Your task to perform on an android device: turn on bluetooth scan Image 0: 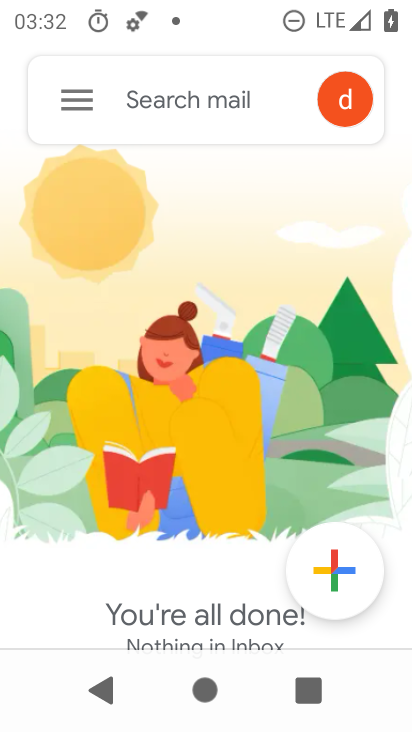
Step 0: press home button
Your task to perform on an android device: turn on bluetooth scan Image 1: 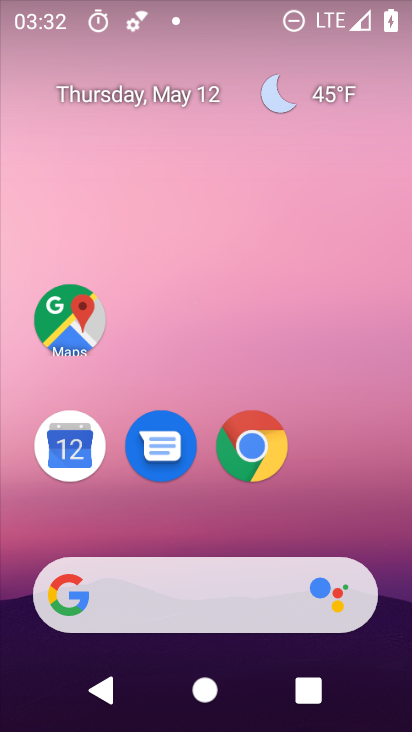
Step 1: drag from (196, 501) to (265, 89)
Your task to perform on an android device: turn on bluetooth scan Image 2: 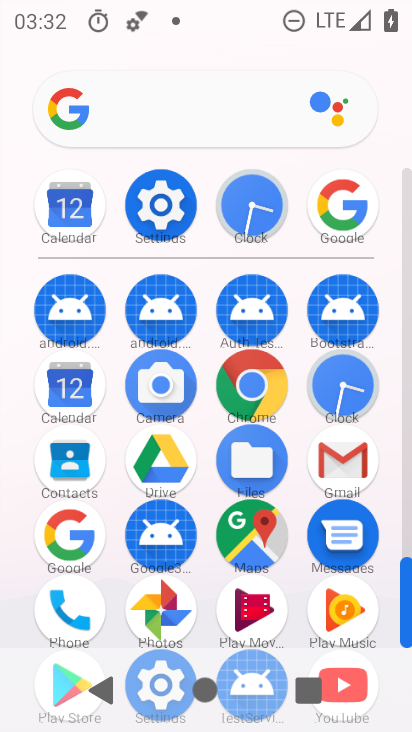
Step 2: click (151, 209)
Your task to perform on an android device: turn on bluetooth scan Image 3: 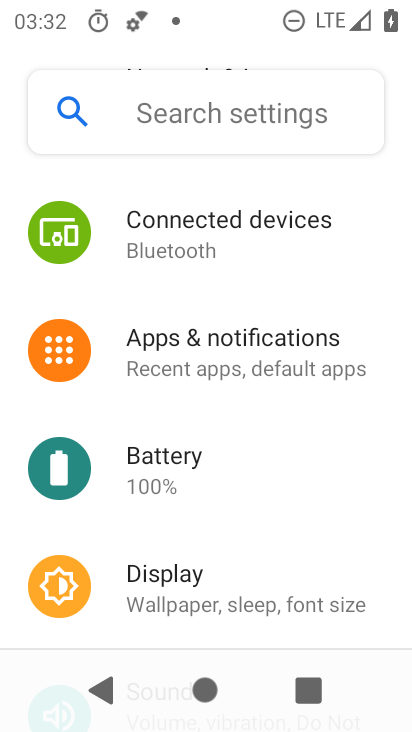
Step 3: drag from (265, 521) to (290, 193)
Your task to perform on an android device: turn on bluetooth scan Image 4: 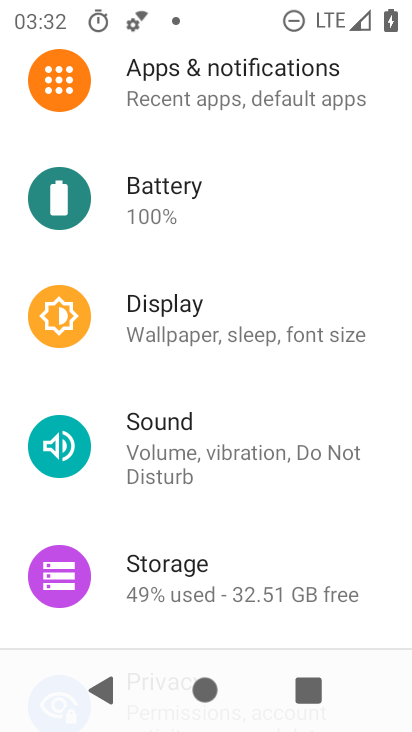
Step 4: drag from (230, 536) to (231, 208)
Your task to perform on an android device: turn on bluetooth scan Image 5: 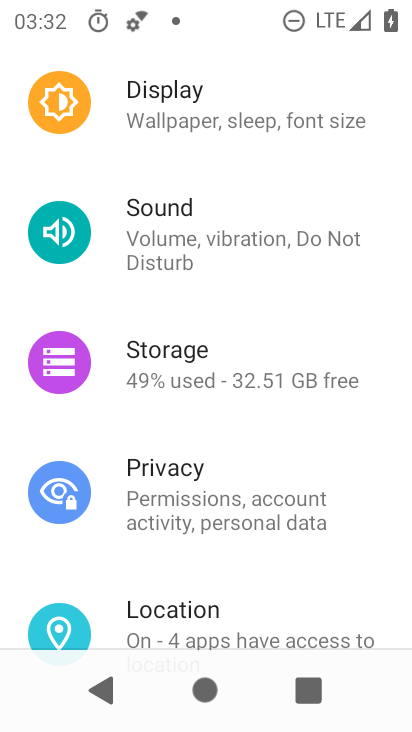
Step 5: click (188, 598)
Your task to perform on an android device: turn on bluetooth scan Image 6: 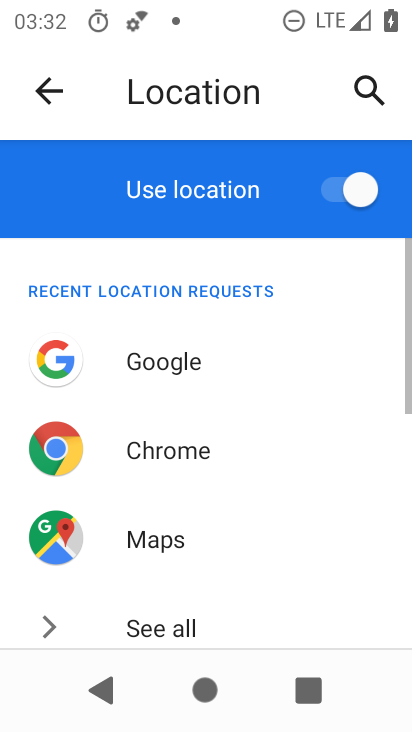
Step 6: drag from (193, 594) to (243, 198)
Your task to perform on an android device: turn on bluetooth scan Image 7: 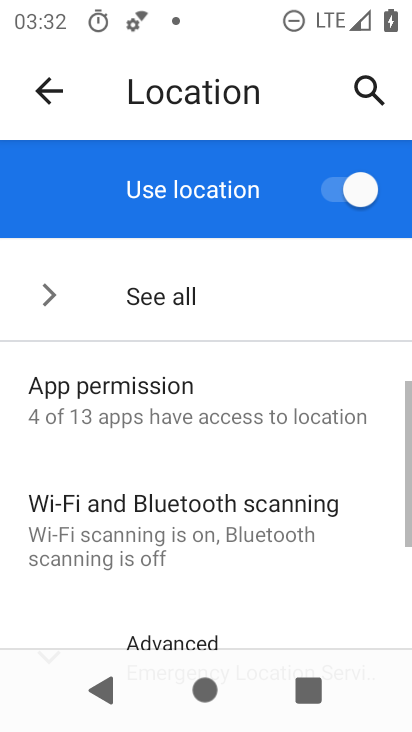
Step 7: click (222, 494)
Your task to perform on an android device: turn on bluetooth scan Image 8: 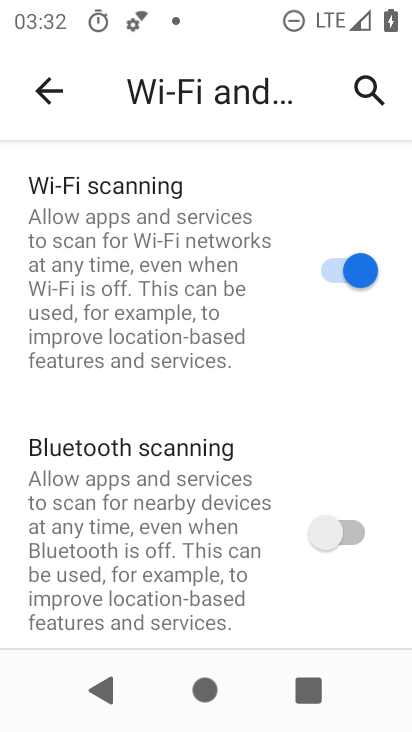
Step 8: click (342, 528)
Your task to perform on an android device: turn on bluetooth scan Image 9: 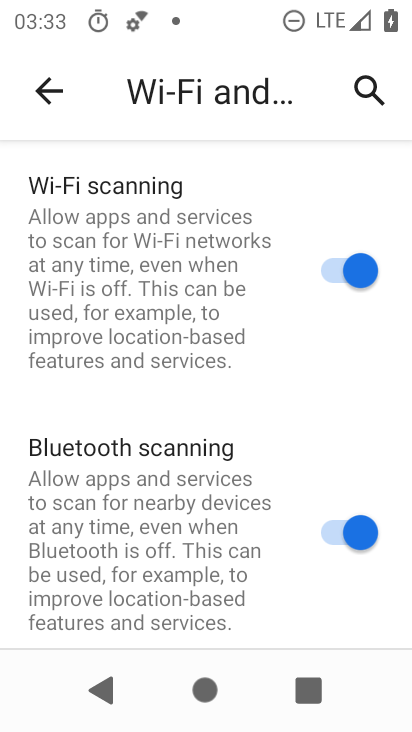
Step 9: task complete